Your task to perform on an android device: open chrome and create a bookmark for the current page Image 0: 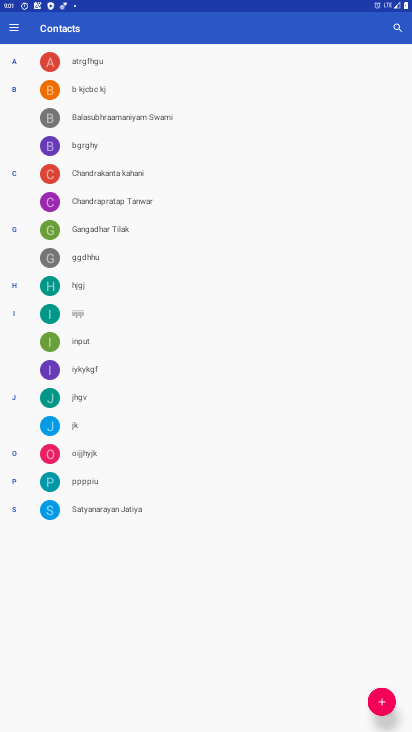
Step 0: press home button
Your task to perform on an android device: open chrome and create a bookmark for the current page Image 1: 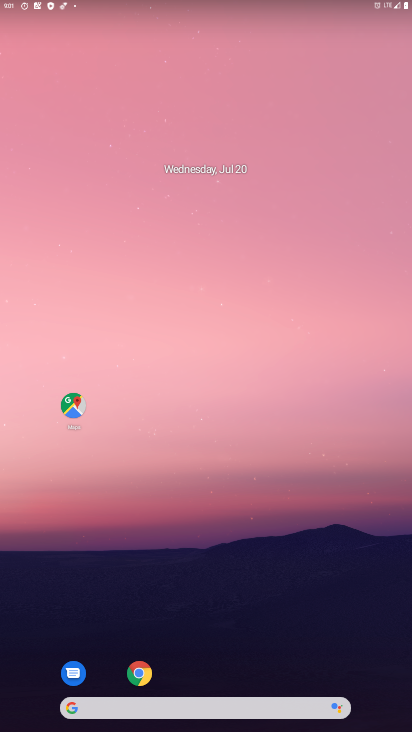
Step 1: click (141, 672)
Your task to perform on an android device: open chrome and create a bookmark for the current page Image 2: 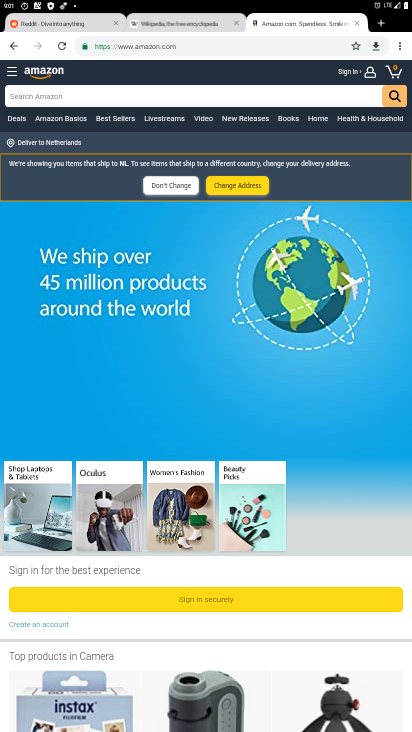
Step 2: click (398, 48)
Your task to perform on an android device: open chrome and create a bookmark for the current page Image 3: 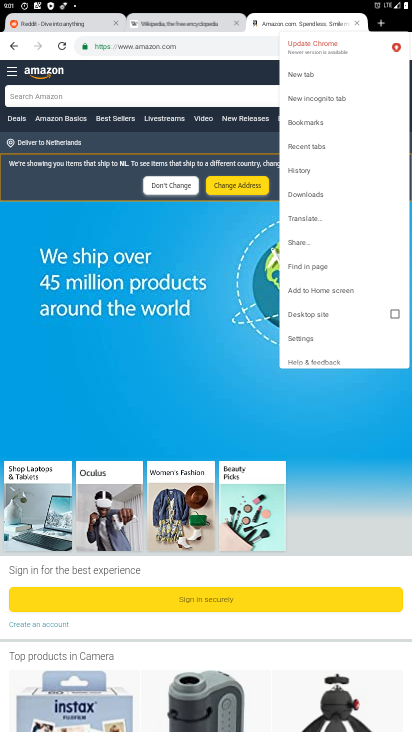
Step 3: click (318, 122)
Your task to perform on an android device: open chrome and create a bookmark for the current page Image 4: 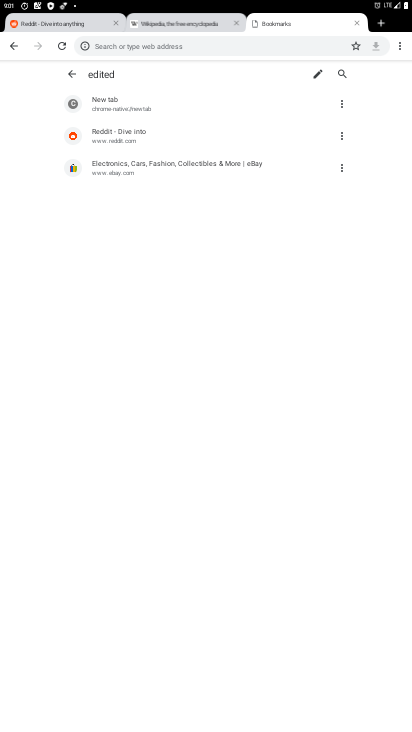
Step 4: press back button
Your task to perform on an android device: open chrome and create a bookmark for the current page Image 5: 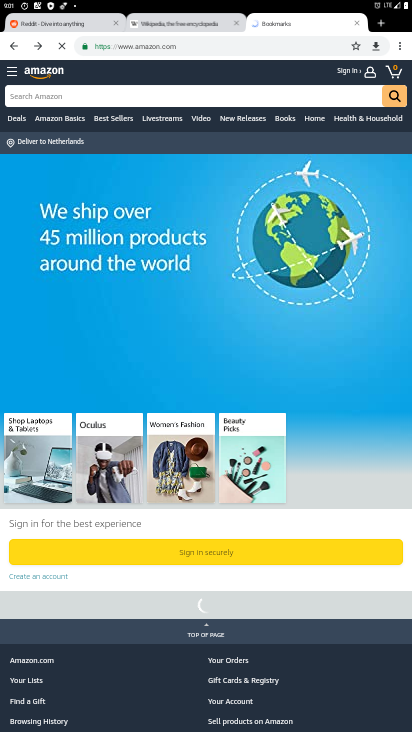
Step 5: click (352, 46)
Your task to perform on an android device: open chrome and create a bookmark for the current page Image 6: 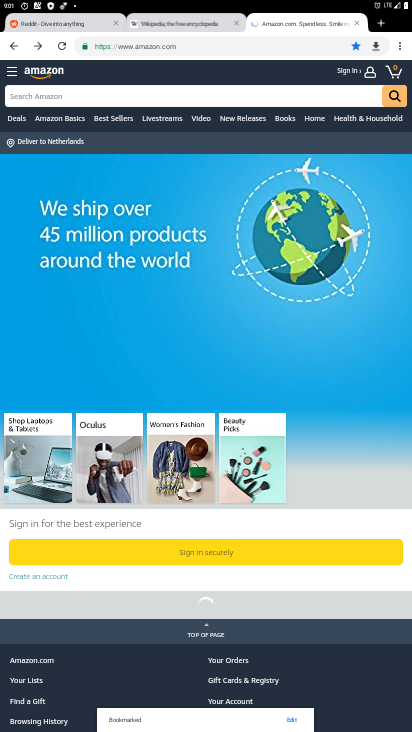
Step 6: task complete